Your task to perform on an android device: find snoozed emails in the gmail app Image 0: 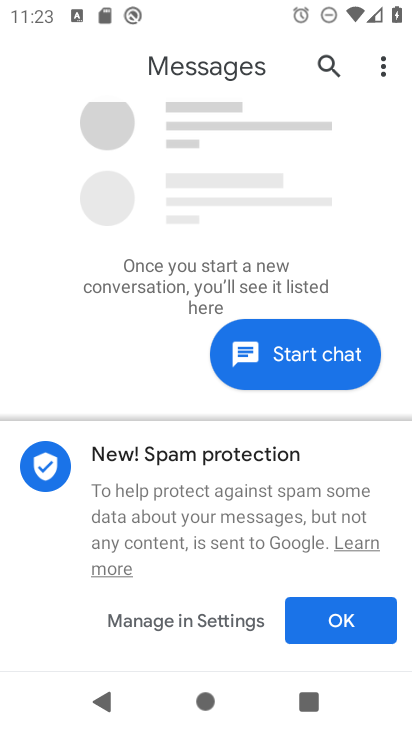
Step 0: press home button
Your task to perform on an android device: find snoozed emails in the gmail app Image 1: 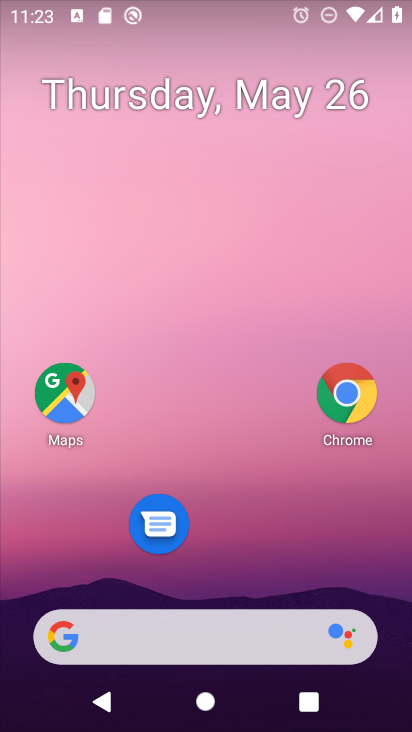
Step 1: drag from (218, 472) to (256, 15)
Your task to perform on an android device: find snoozed emails in the gmail app Image 2: 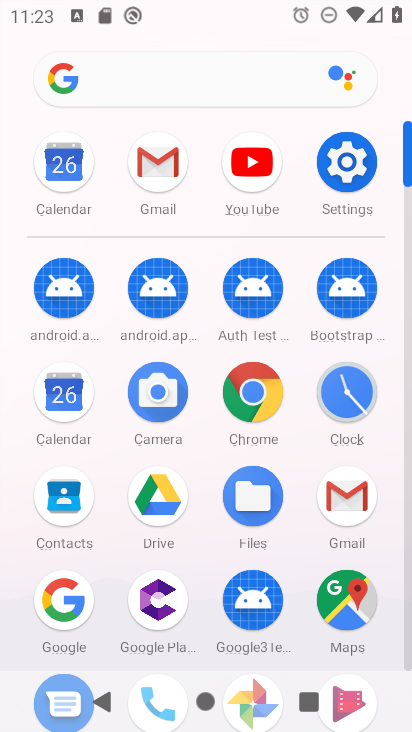
Step 2: click (165, 154)
Your task to perform on an android device: find snoozed emails in the gmail app Image 3: 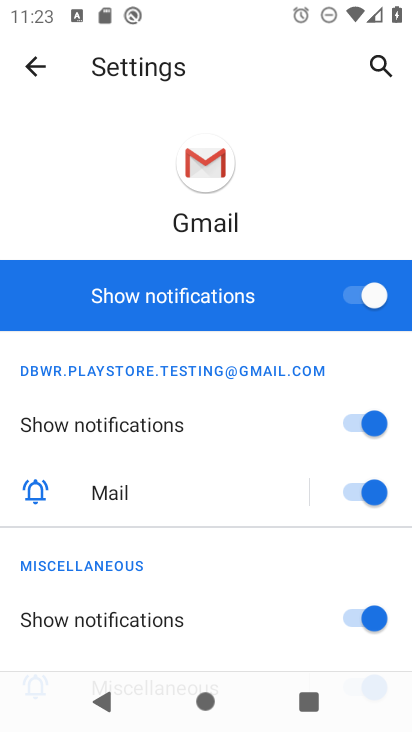
Step 3: click (36, 63)
Your task to perform on an android device: find snoozed emails in the gmail app Image 4: 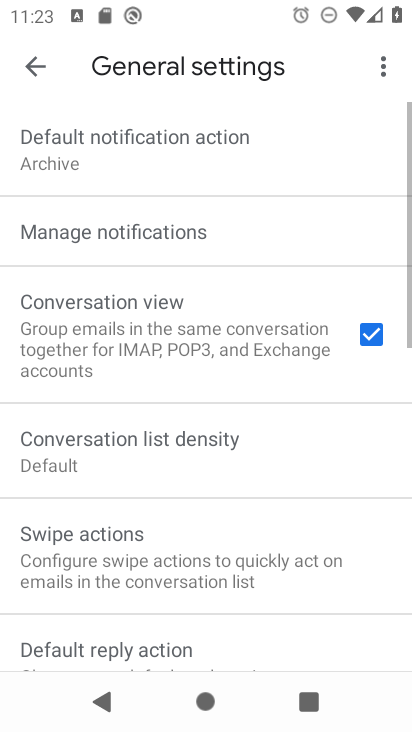
Step 4: click (36, 63)
Your task to perform on an android device: find snoozed emails in the gmail app Image 5: 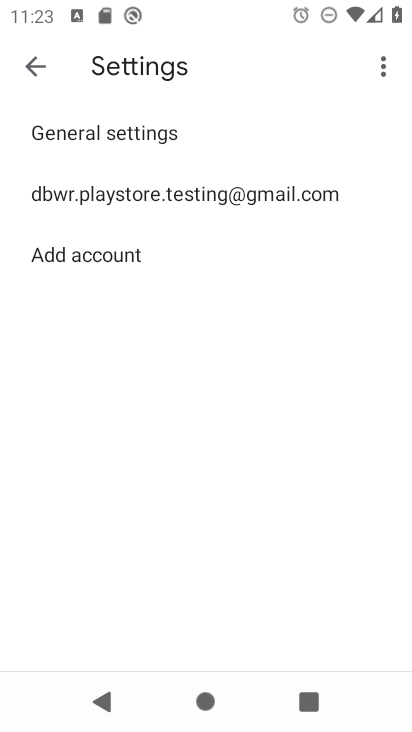
Step 5: click (36, 63)
Your task to perform on an android device: find snoozed emails in the gmail app Image 6: 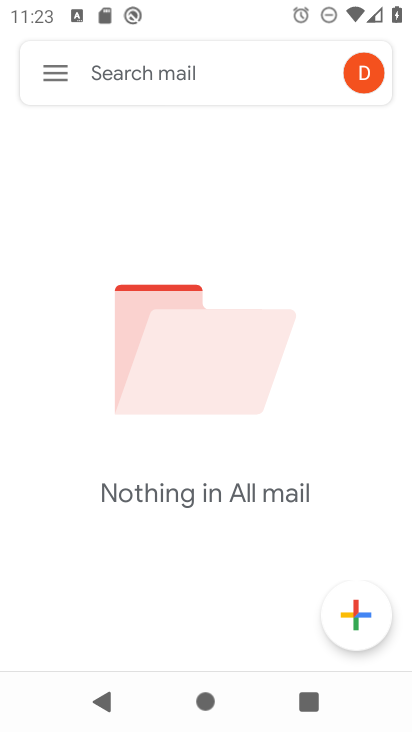
Step 6: click (56, 68)
Your task to perform on an android device: find snoozed emails in the gmail app Image 7: 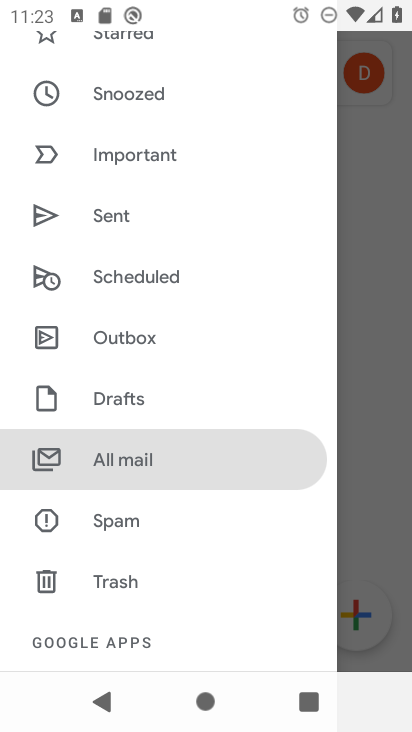
Step 7: click (154, 92)
Your task to perform on an android device: find snoozed emails in the gmail app Image 8: 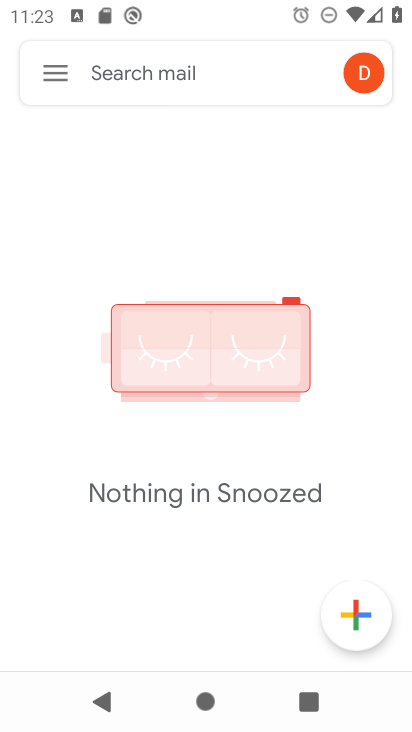
Step 8: task complete